Your task to perform on an android device: turn vacation reply on in the gmail app Image 0: 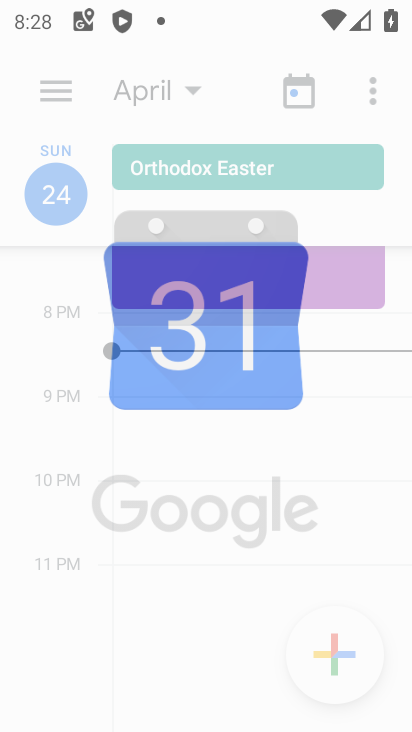
Step 0: drag from (205, 564) to (172, 63)
Your task to perform on an android device: turn vacation reply on in the gmail app Image 1: 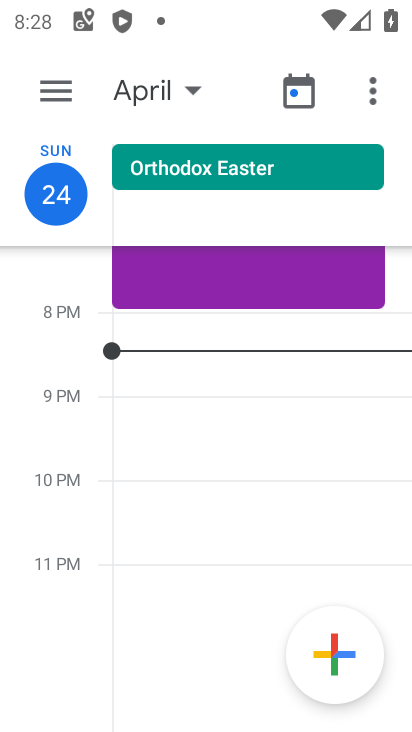
Step 1: press home button
Your task to perform on an android device: turn vacation reply on in the gmail app Image 2: 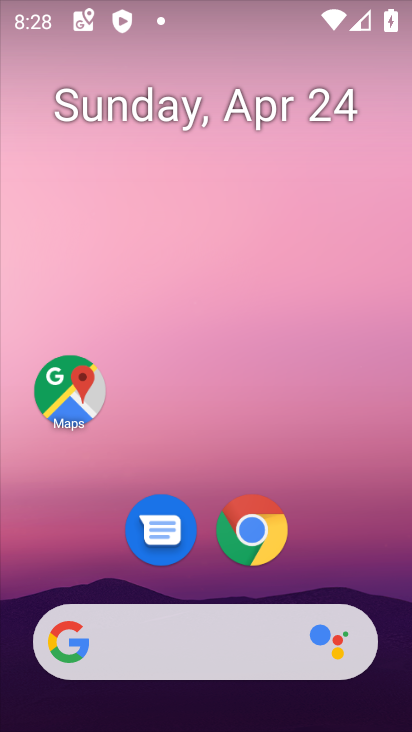
Step 2: drag from (202, 588) to (212, 155)
Your task to perform on an android device: turn vacation reply on in the gmail app Image 3: 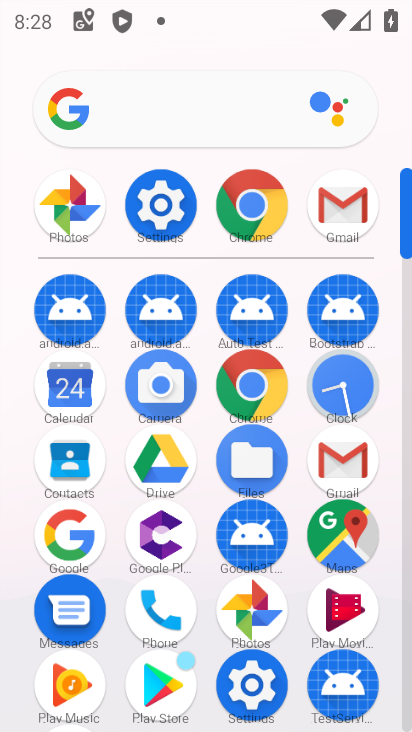
Step 3: click (335, 216)
Your task to perform on an android device: turn vacation reply on in the gmail app Image 4: 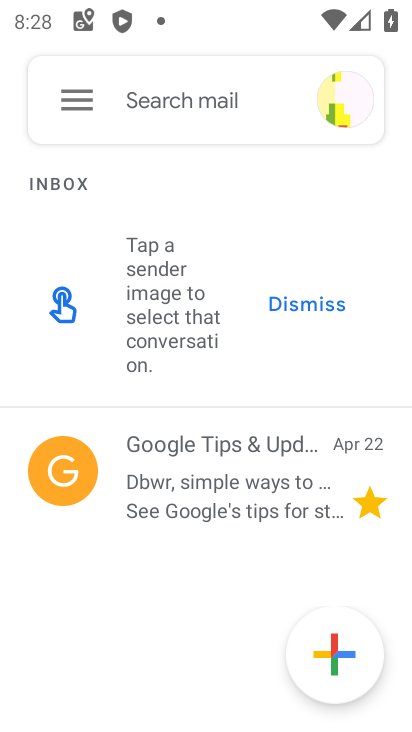
Step 4: click (83, 112)
Your task to perform on an android device: turn vacation reply on in the gmail app Image 5: 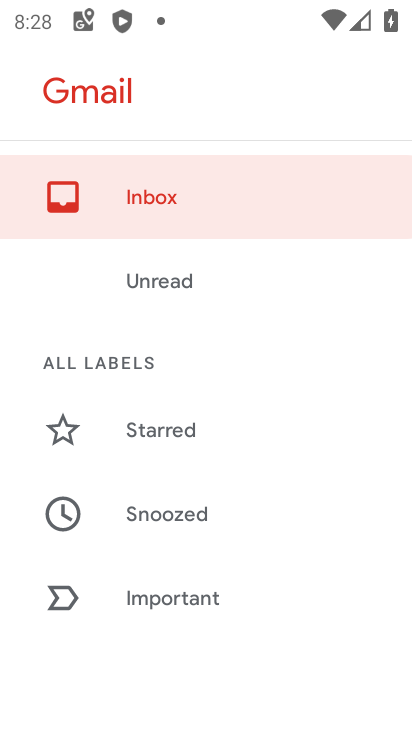
Step 5: drag from (147, 534) to (192, 138)
Your task to perform on an android device: turn vacation reply on in the gmail app Image 6: 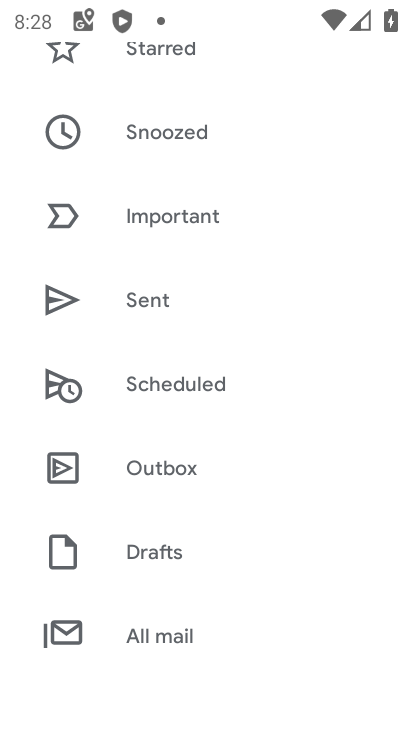
Step 6: drag from (170, 640) to (209, 279)
Your task to perform on an android device: turn vacation reply on in the gmail app Image 7: 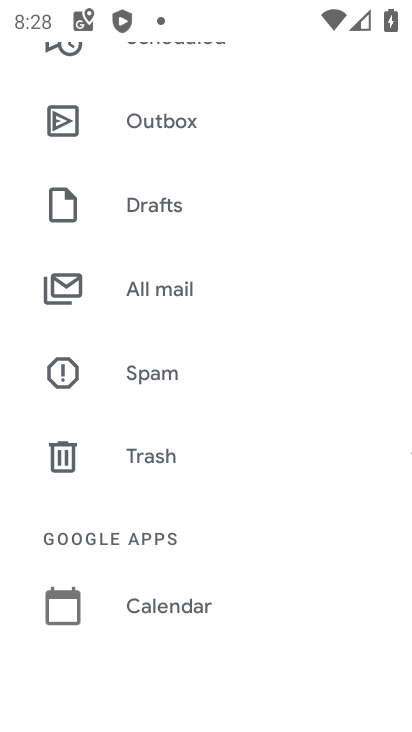
Step 7: drag from (258, 510) to (279, 117)
Your task to perform on an android device: turn vacation reply on in the gmail app Image 8: 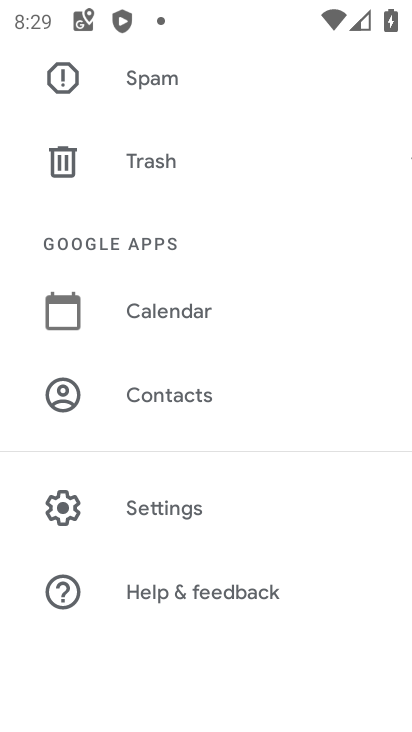
Step 8: click (185, 483)
Your task to perform on an android device: turn vacation reply on in the gmail app Image 9: 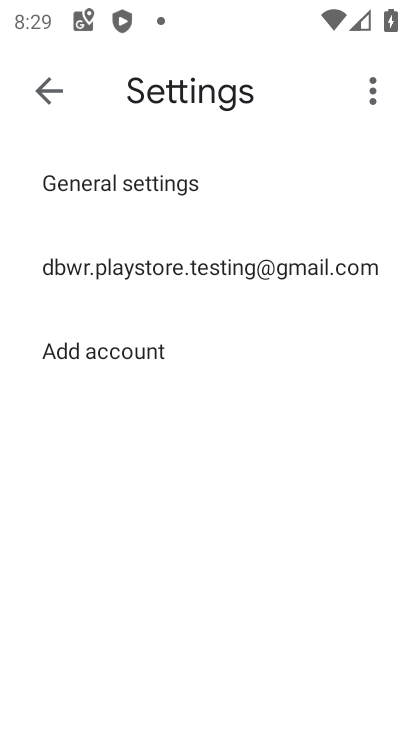
Step 9: click (185, 296)
Your task to perform on an android device: turn vacation reply on in the gmail app Image 10: 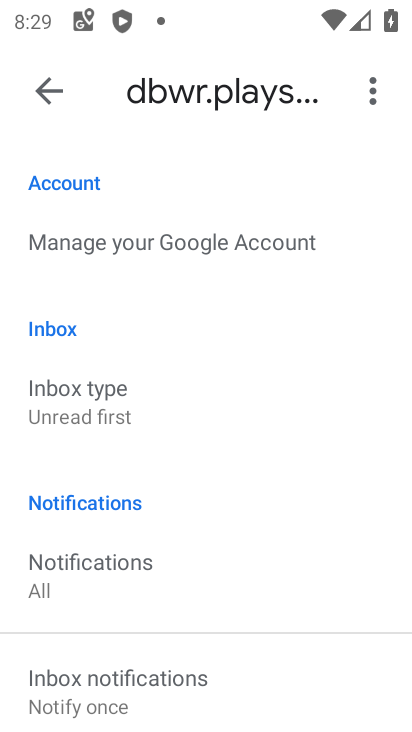
Step 10: drag from (209, 614) to (277, 147)
Your task to perform on an android device: turn vacation reply on in the gmail app Image 11: 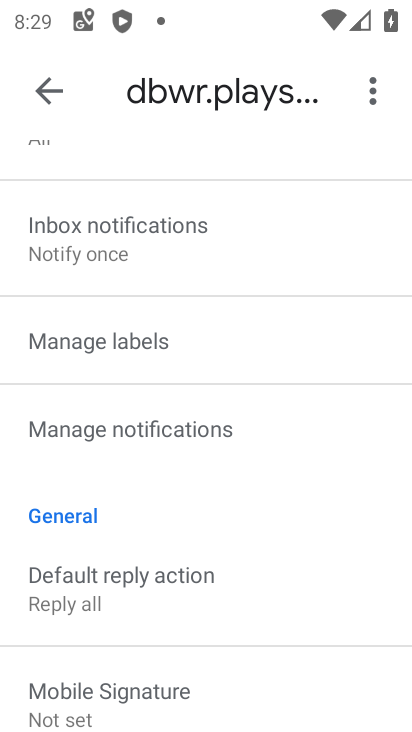
Step 11: drag from (214, 645) to (284, 228)
Your task to perform on an android device: turn vacation reply on in the gmail app Image 12: 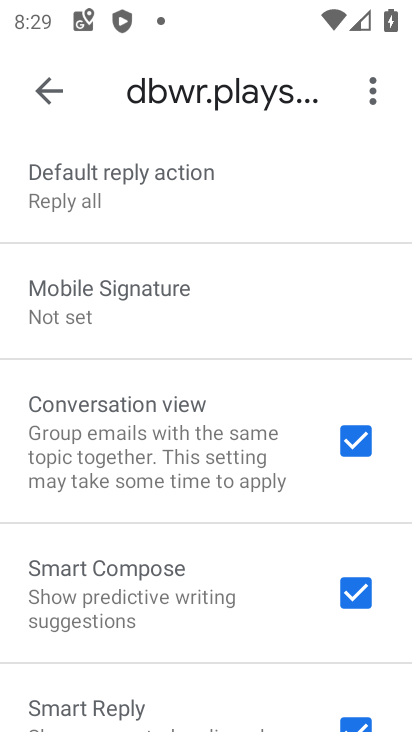
Step 12: drag from (133, 608) to (176, 203)
Your task to perform on an android device: turn vacation reply on in the gmail app Image 13: 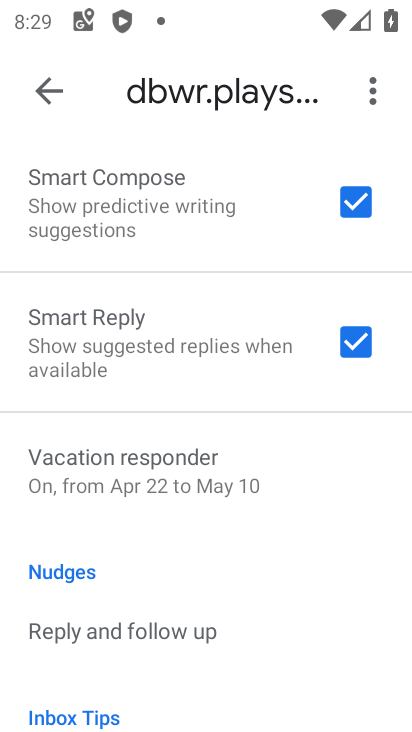
Step 13: click (278, 494)
Your task to perform on an android device: turn vacation reply on in the gmail app Image 14: 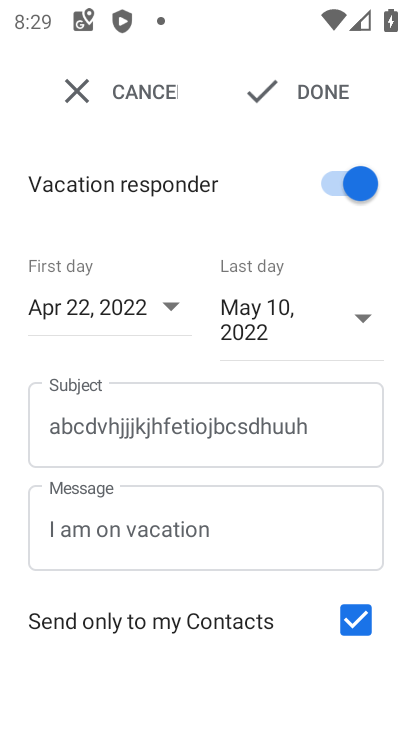
Step 14: click (323, 81)
Your task to perform on an android device: turn vacation reply on in the gmail app Image 15: 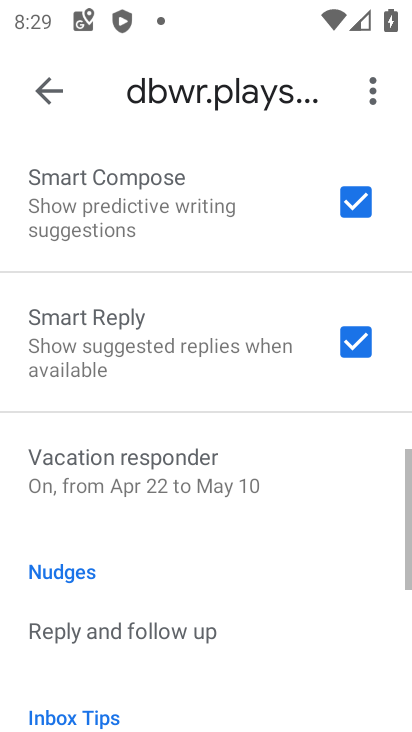
Step 15: task complete